Your task to perform on an android device: Is it going to rain this weekend? Image 0: 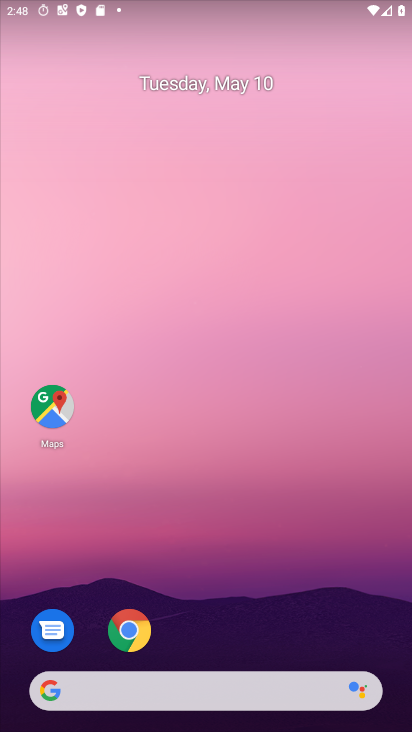
Step 0: click (114, 684)
Your task to perform on an android device: Is it going to rain this weekend? Image 1: 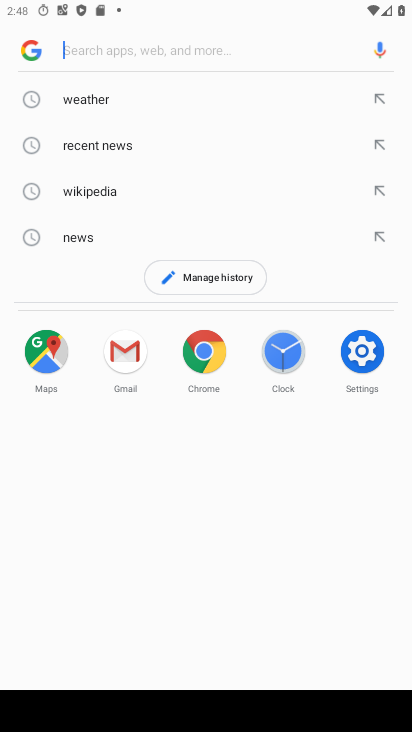
Step 1: click (122, 93)
Your task to perform on an android device: Is it going to rain this weekend? Image 2: 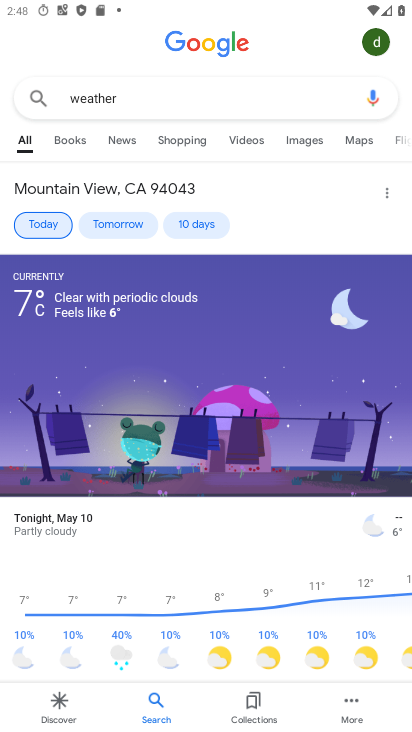
Step 2: click (168, 224)
Your task to perform on an android device: Is it going to rain this weekend? Image 3: 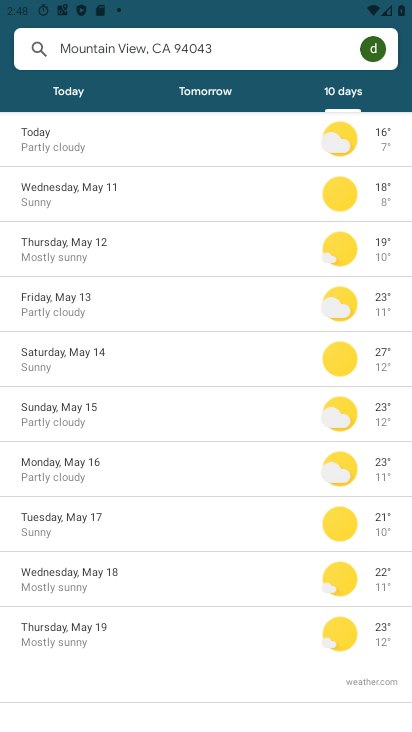
Step 3: task complete